Your task to perform on an android device: Open Android settings Image 0: 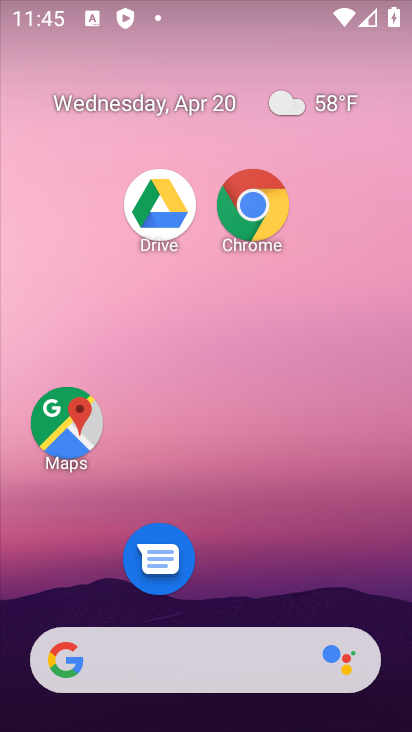
Step 0: drag from (281, 694) to (296, 31)
Your task to perform on an android device: Open Android settings Image 1: 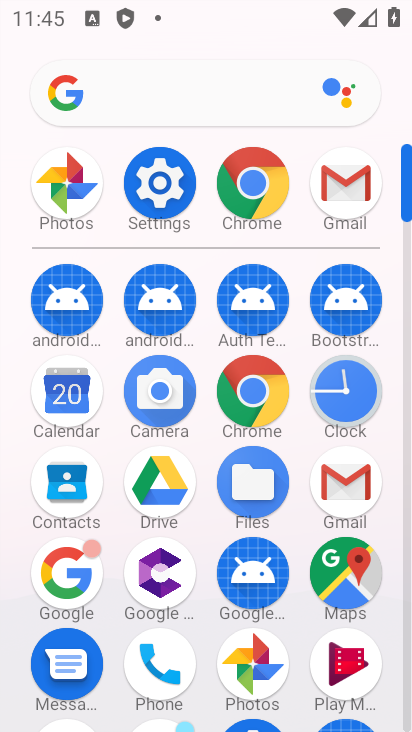
Step 1: drag from (281, 665) to (294, 109)
Your task to perform on an android device: Open Android settings Image 2: 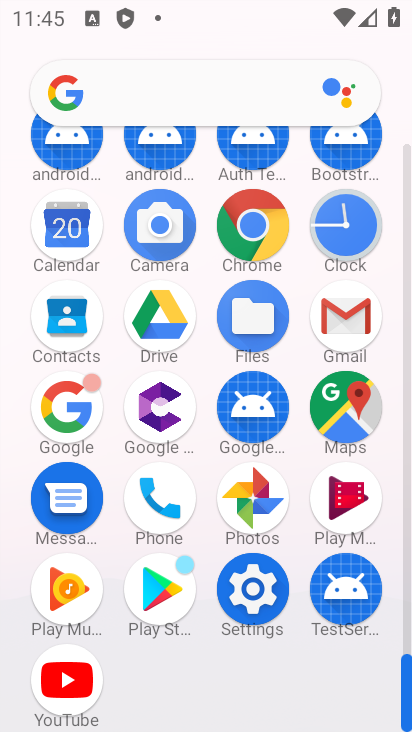
Step 2: click (272, 604)
Your task to perform on an android device: Open Android settings Image 3: 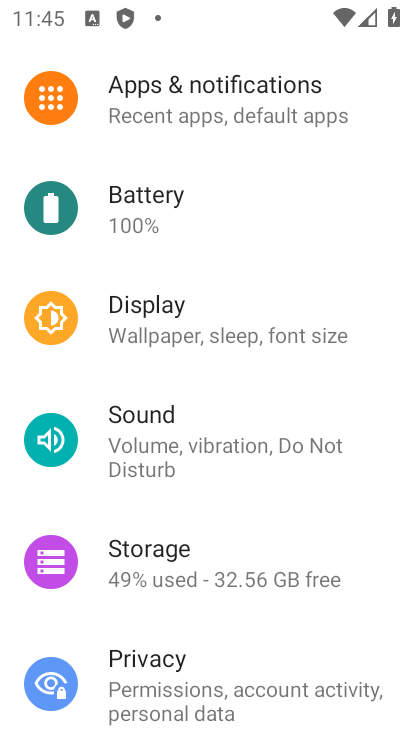
Step 3: drag from (240, 652) to (248, 103)
Your task to perform on an android device: Open Android settings Image 4: 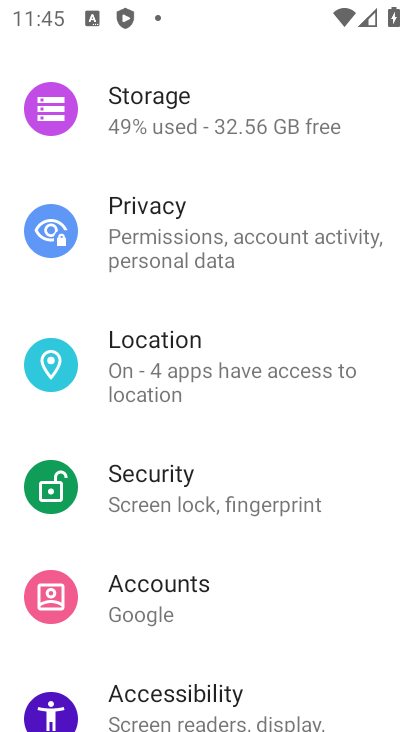
Step 4: drag from (231, 629) to (245, 116)
Your task to perform on an android device: Open Android settings Image 5: 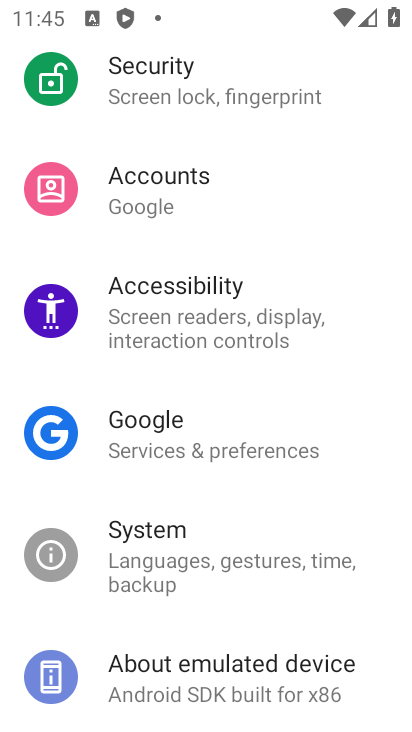
Step 5: click (288, 680)
Your task to perform on an android device: Open Android settings Image 6: 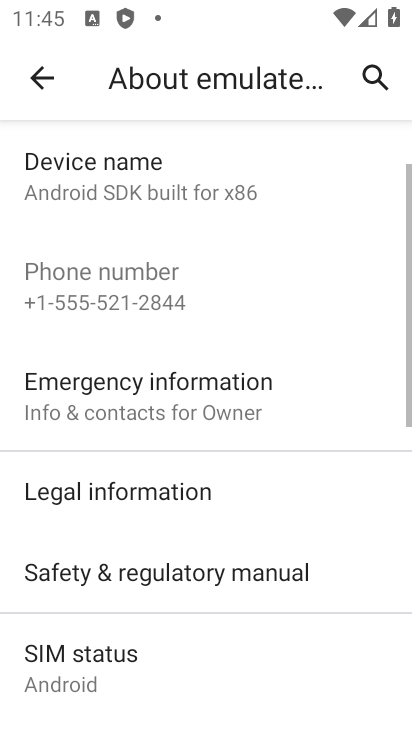
Step 6: drag from (288, 680) to (313, 197)
Your task to perform on an android device: Open Android settings Image 7: 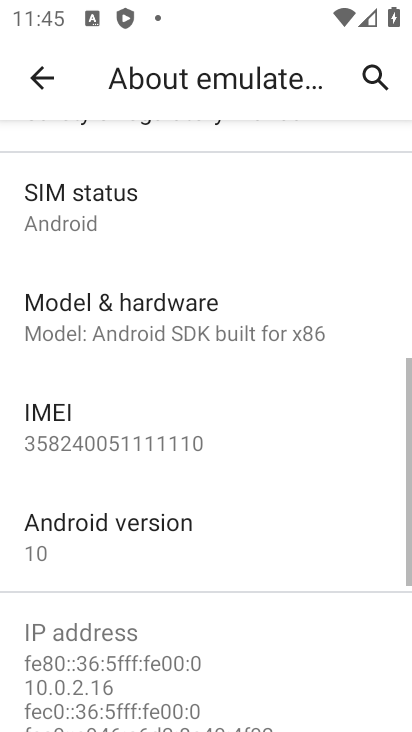
Step 7: click (203, 542)
Your task to perform on an android device: Open Android settings Image 8: 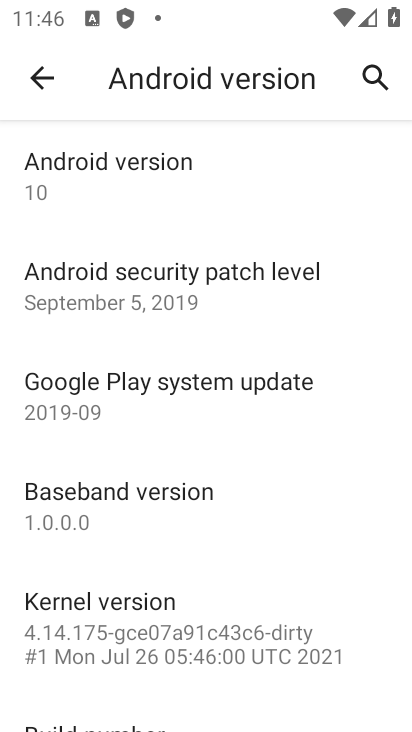
Step 8: task complete